Your task to perform on an android device: Go to settings Image 0: 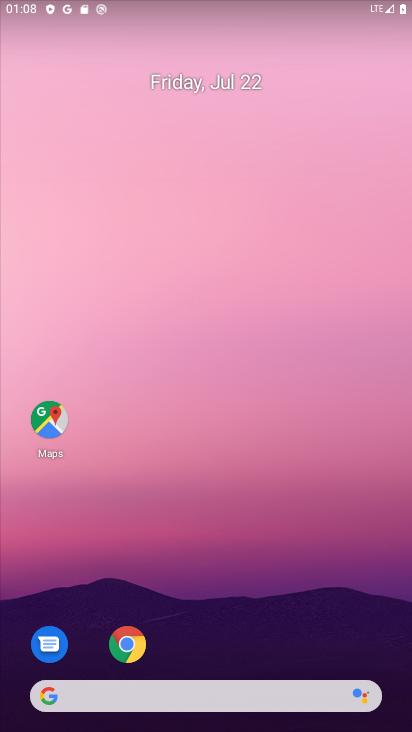
Step 0: drag from (260, 700) to (319, 33)
Your task to perform on an android device: Go to settings Image 1: 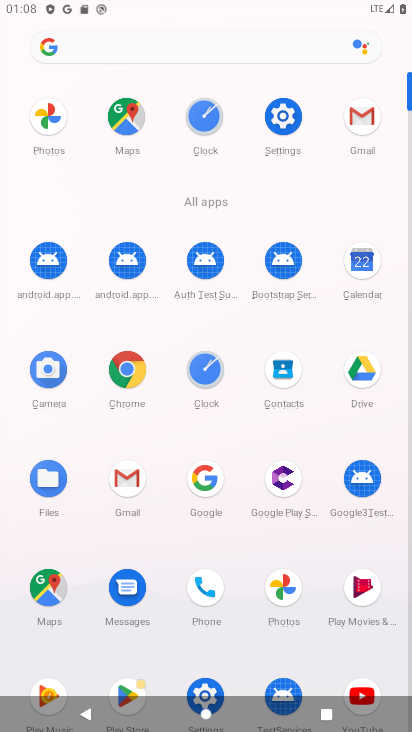
Step 1: click (270, 111)
Your task to perform on an android device: Go to settings Image 2: 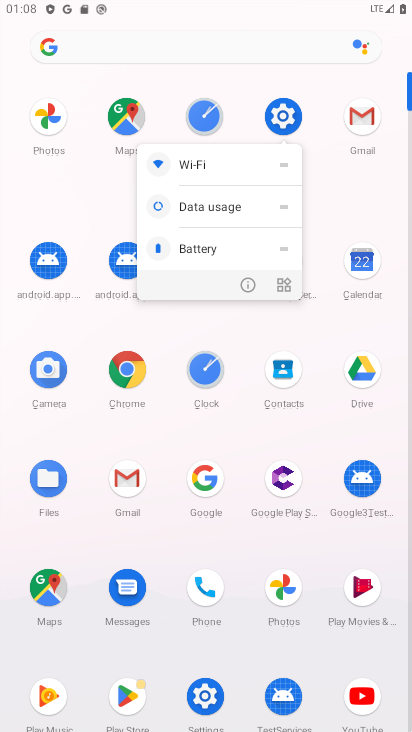
Step 2: click (286, 126)
Your task to perform on an android device: Go to settings Image 3: 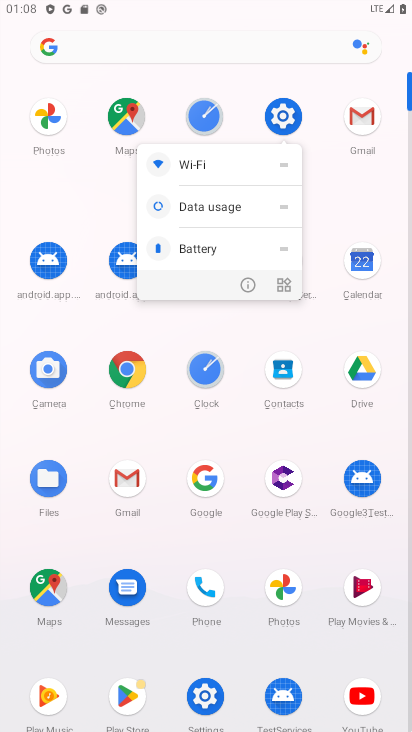
Step 3: click (286, 126)
Your task to perform on an android device: Go to settings Image 4: 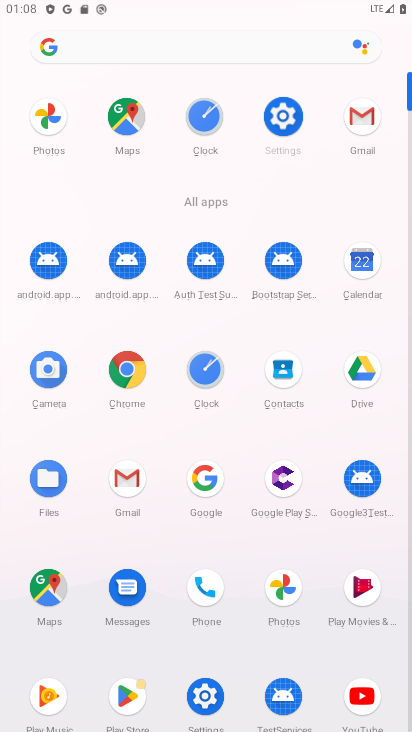
Step 4: click (286, 126)
Your task to perform on an android device: Go to settings Image 5: 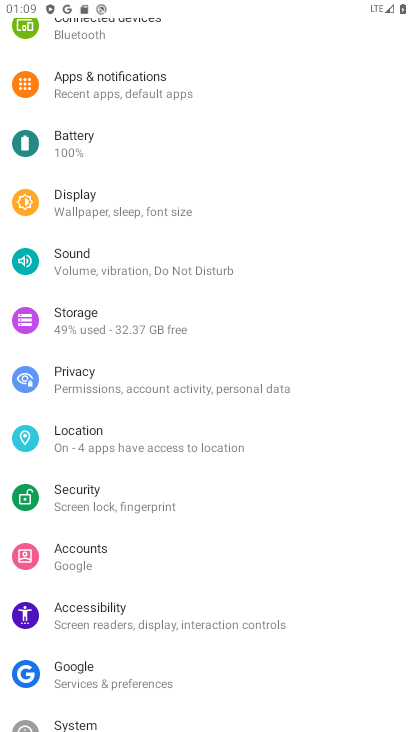
Step 5: task complete